Your task to perform on an android device: turn off javascript in the chrome app Image 0: 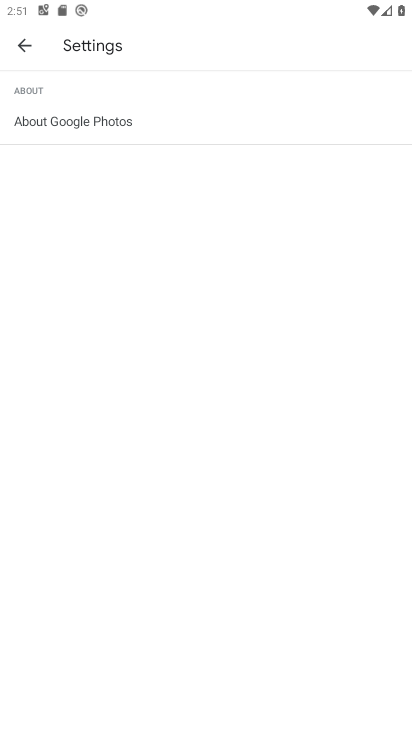
Step 0: press home button
Your task to perform on an android device: turn off javascript in the chrome app Image 1: 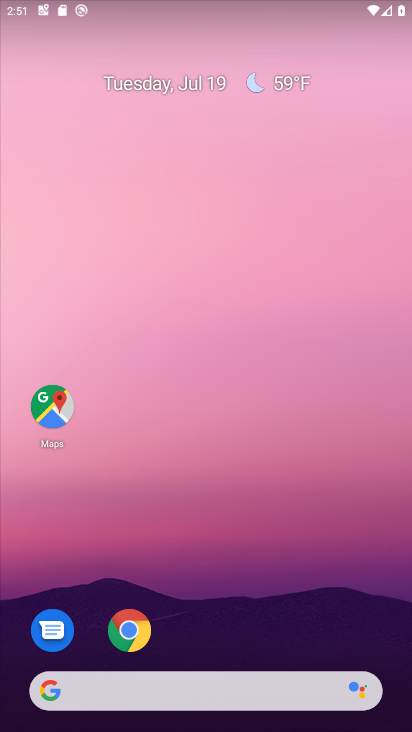
Step 1: click (132, 628)
Your task to perform on an android device: turn off javascript in the chrome app Image 2: 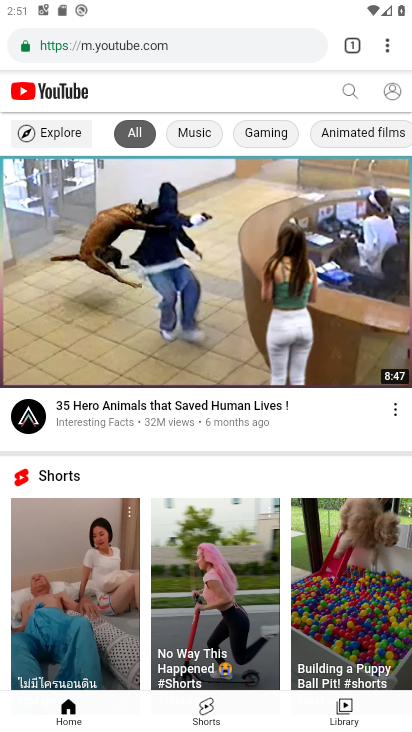
Step 2: click (386, 42)
Your task to perform on an android device: turn off javascript in the chrome app Image 3: 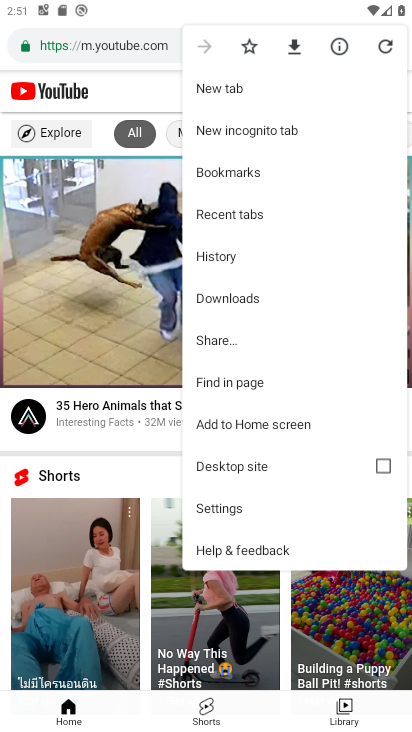
Step 3: click (220, 503)
Your task to perform on an android device: turn off javascript in the chrome app Image 4: 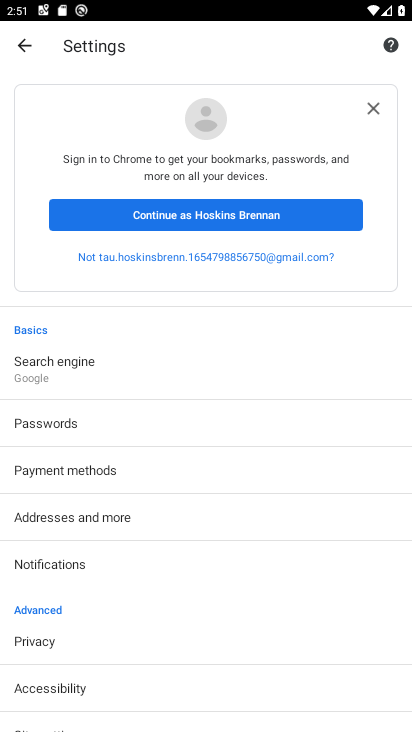
Step 4: drag from (158, 629) to (154, 395)
Your task to perform on an android device: turn off javascript in the chrome app Image 5: 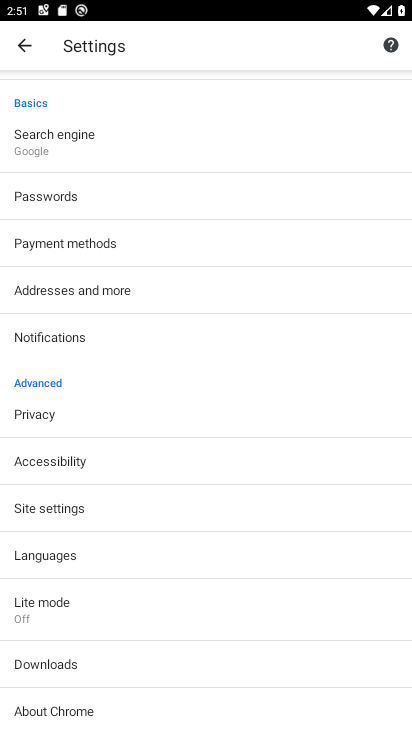
Step 5: click (64, 507)
Your task to perform on an android device: turn off javascript in the chrome app Image 6: 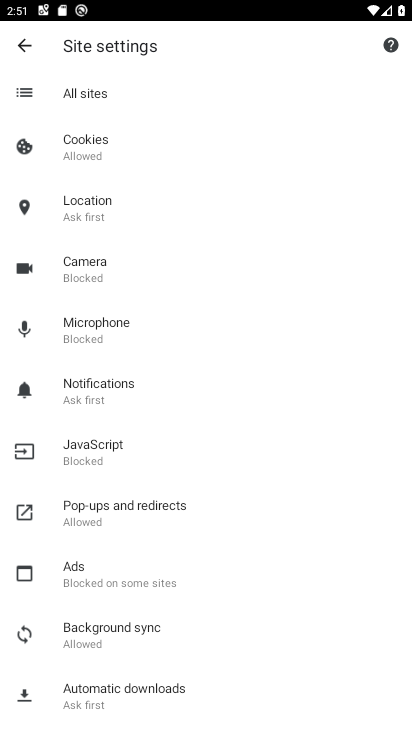
Step 6: click (83, 442)
Your task to perform on an android device: turn off javascript in the chrome app Image 7: 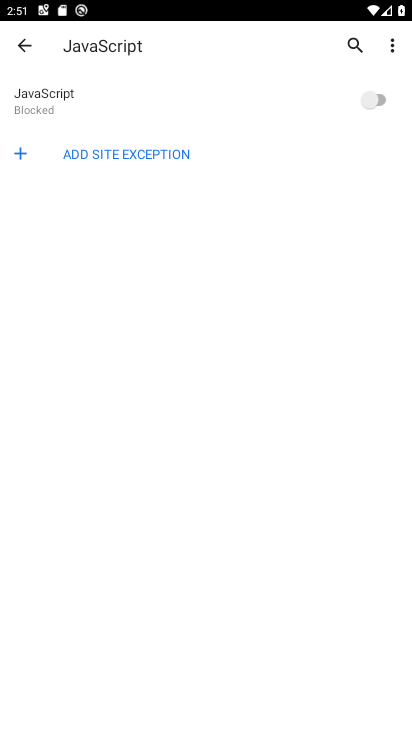
Step 7: task complete